Your task to perform on an android device: Search for vegetarian restaurants on Maps Image 0: 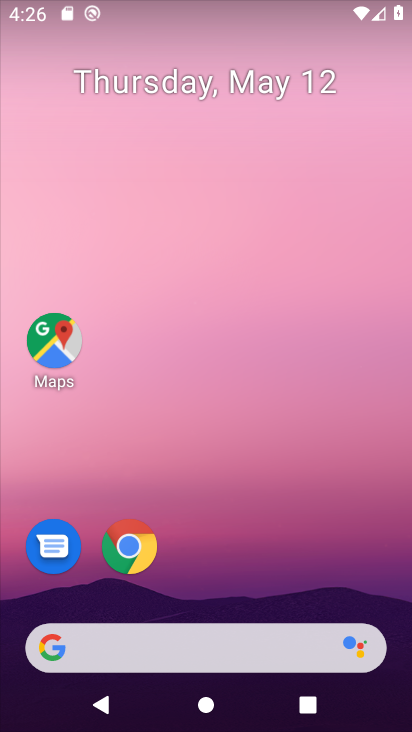
Step 0: click (58, 351)
Your task to perform on an android device: Search for vegetarian restaurants on Maps Image 1: 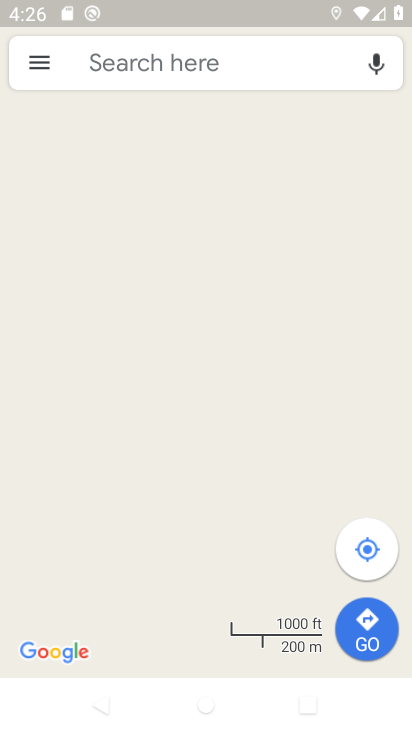
Step 1: click (206, 72)
Your task to perform on an android device: Search for vegetarian restaurants on Maps Image 2: 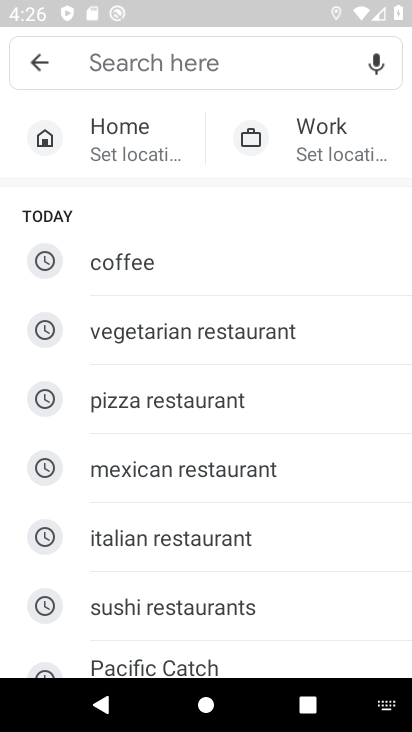
Step 2: type "vegetarian restaurants"
Your task to perform on an android device: Search for vegetarian restaurants on Maps Image 3: 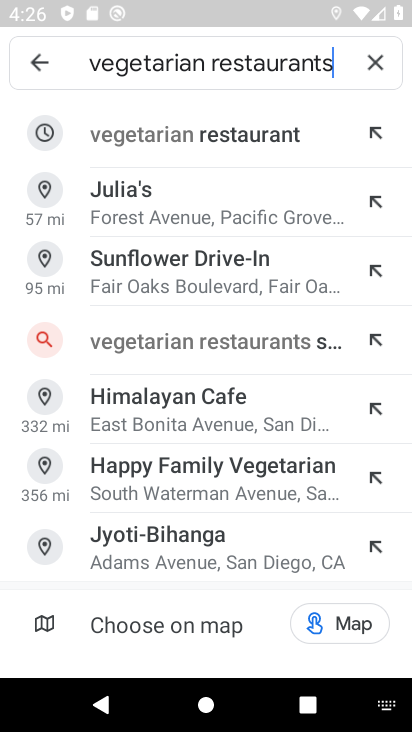
Step 3: click (227, 140)
Your task to perform on an android device: Search for vegetarian restaurants on Maps Image 4: 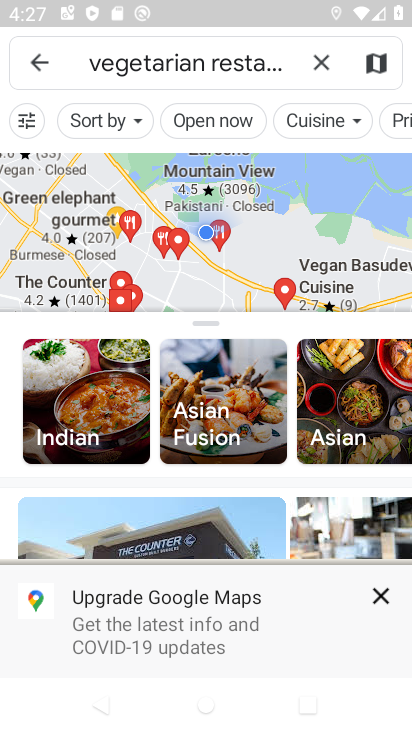
Step 4: task complete